Your task to perform on an android device: open a bookmark in the chrome app Image 0: 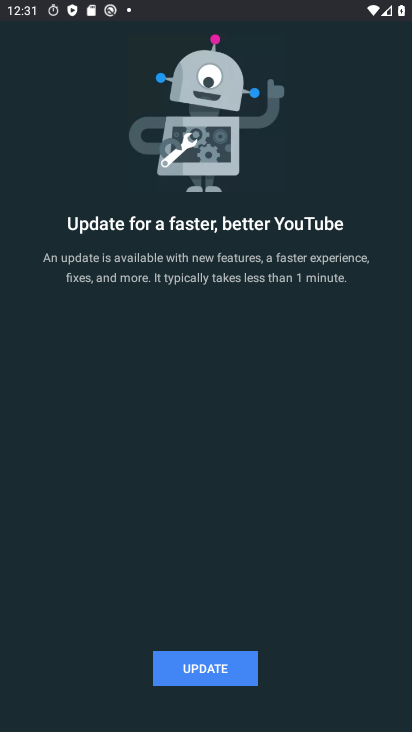
Step 0: press home button
Your task to perform on an android device: open a bookmark in the chrome app Image 1: 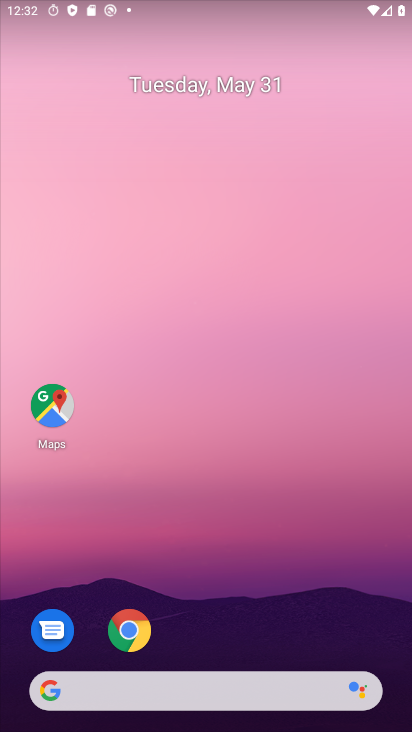
Step 1: drag from (172, 636) to (155, 275)
Your task to perform on an android device: open a bookmark in the chrome app Image 2: 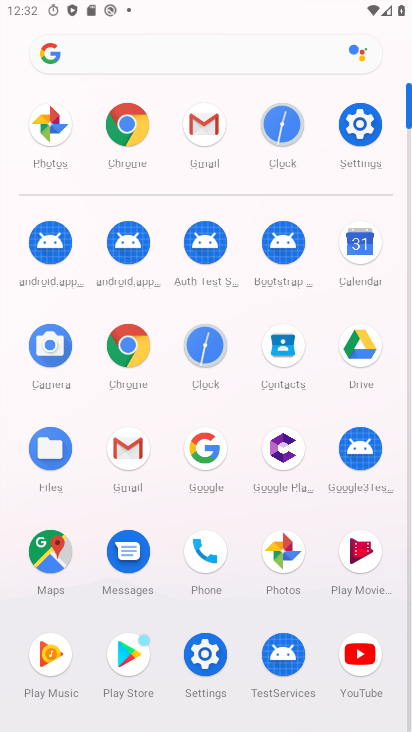
Step 2: click (121, 343)
Your task to perform on an android device: open a bookmark in the chrome app Image 3: 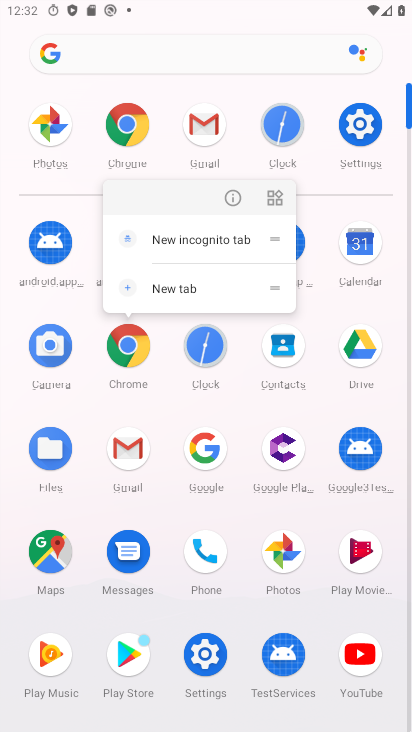
Step 3: click (130, 345)
Your task to perform on an android device: open a bookmark in the chrome app Image 4: 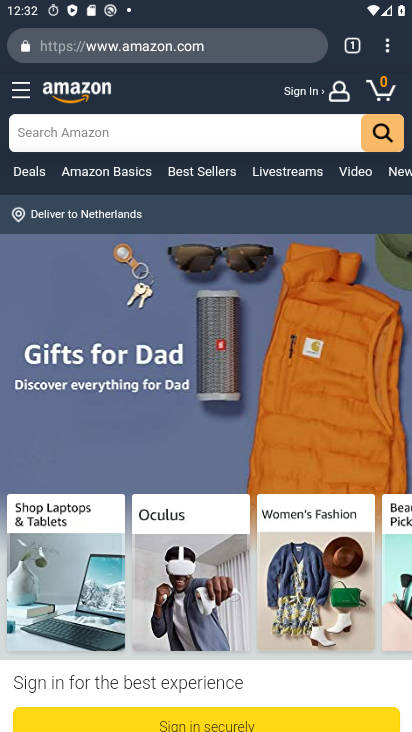
Step 4: click (390, 49)
Your task to perform on an android device: open a bookmark in the chrome app Image 5: 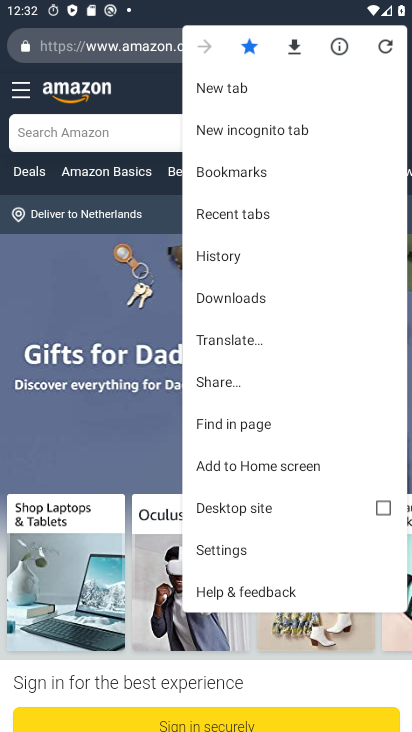
Step 5: click (231, 166)
Your task to perform on an android device: open a bookmark in the chrome app Image 6: 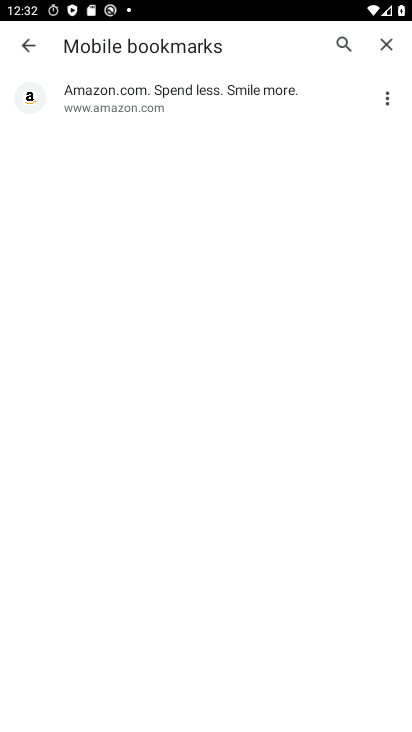
Step 6: task complete